Your task to perform on an android device: open a bookmark in the chrome app Image 0: 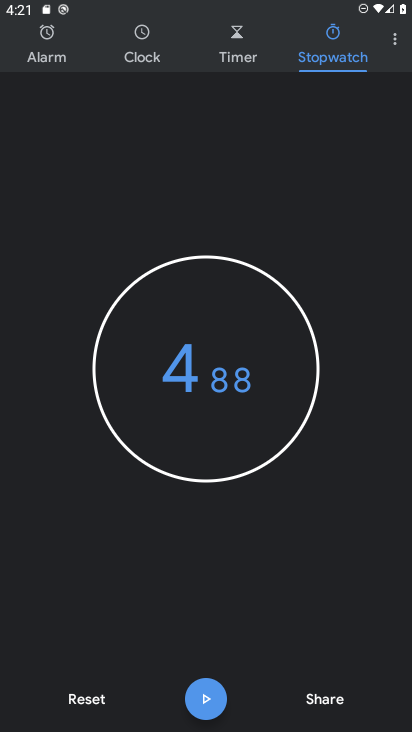
Step 0: press home button
Your task to perform on an android device: open a bookmark in the chrome app Image 1: 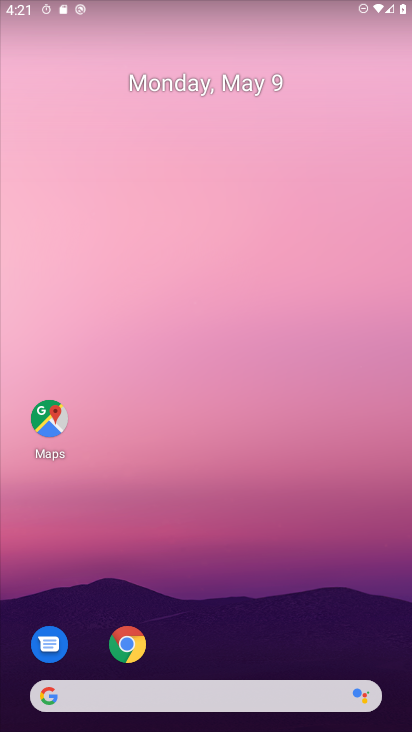
Step 1: click (128, 630)
Your task to perform on an android device: open a bookmark in the chrome app Image 2: 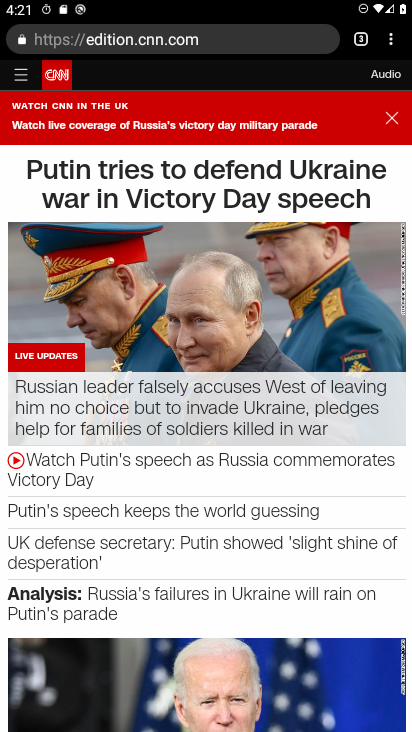
Step 2: click (395, 36)
Your task to perform on an android device: open a bookmark in the chrome app Image 3: 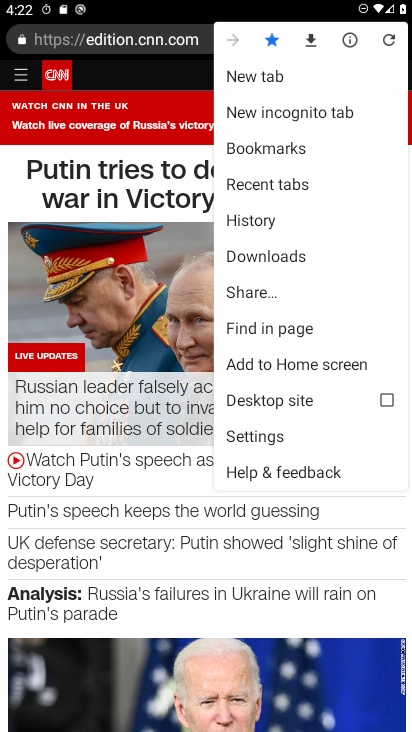
Step 3: click (249, 143)
Your task to perform on an android device: open a bookmark in the chrome app Image 4: 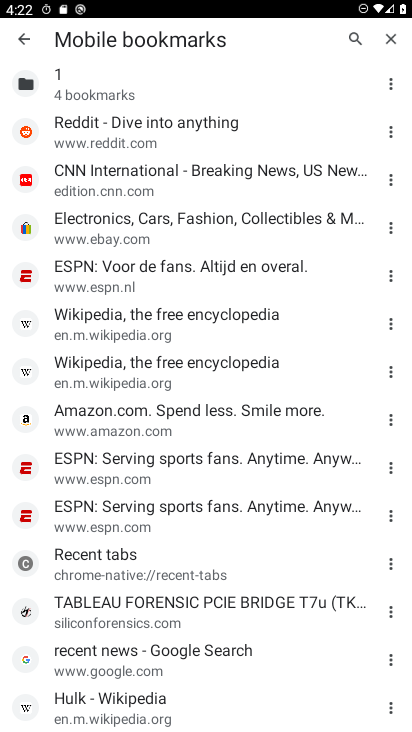
Step 4: click (93, 221)
Your task to perform on an android device: open a bookmark in the chrome app Image 5: 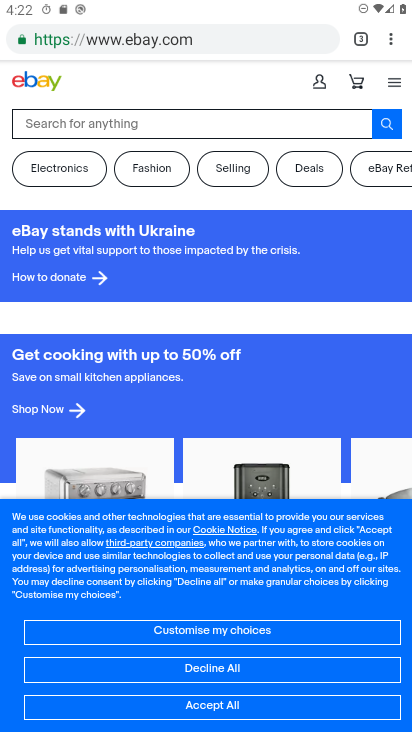
Step 5: task complete